Your task to perform on an android device: Show the shopping cart on walmart.com. Image 0: 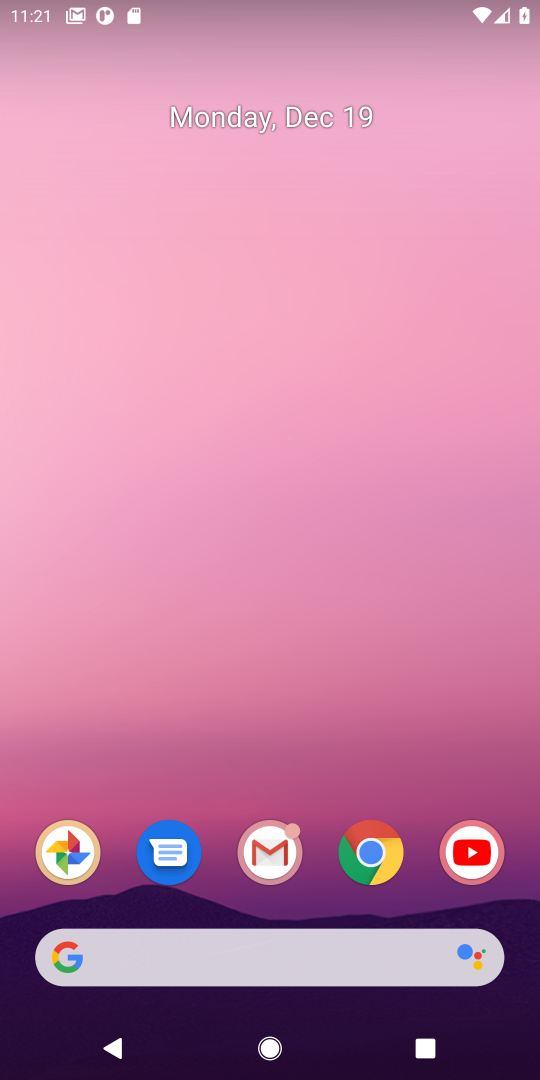
Step 0: click (361, 857)
Your task to perform on an android device: Show the shopping cart on walmart.com. Image 1: 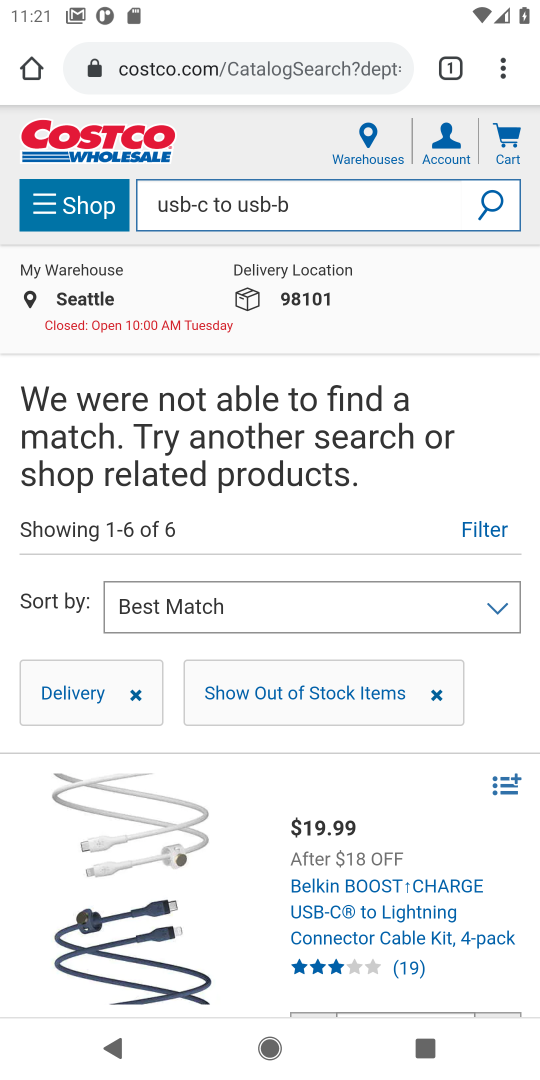
Step 1: click (173, 72)
Your task to perform on an android device: Show the shopping cart on walmart.com. Image 2: 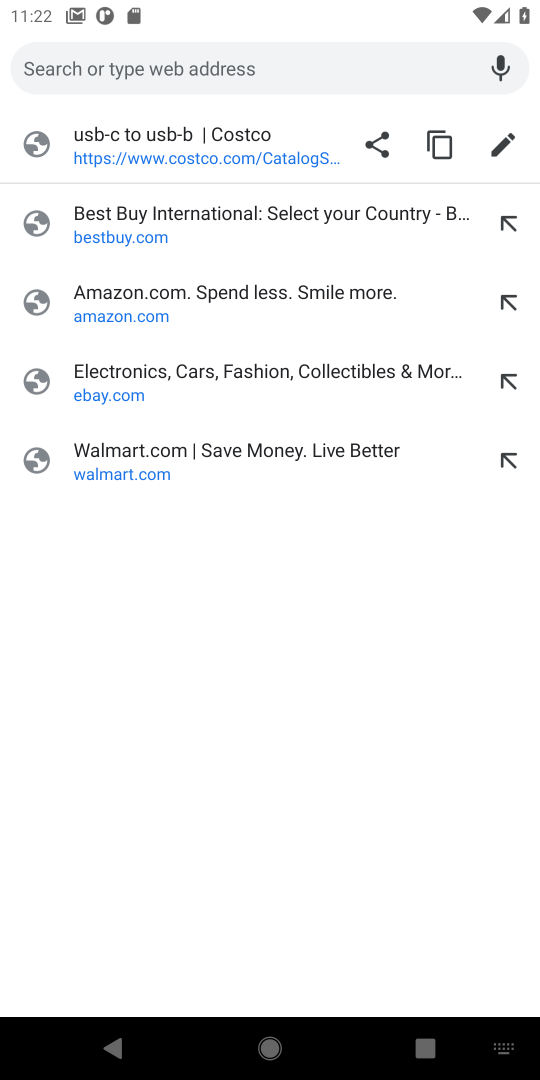
Step 2: click (108, 465)
Your task to perform on an android device: Show the shopping cart on walmart.com. Image 3: 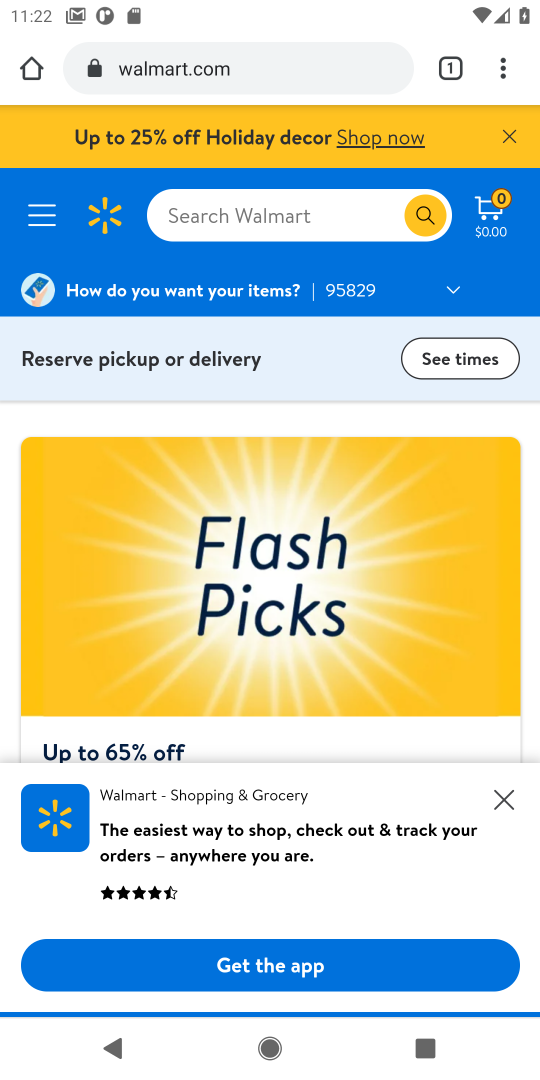
Step 3: click (492, 219)
Your task to perform on an android device: Show the shopping cart on walmart.com. Image 4: 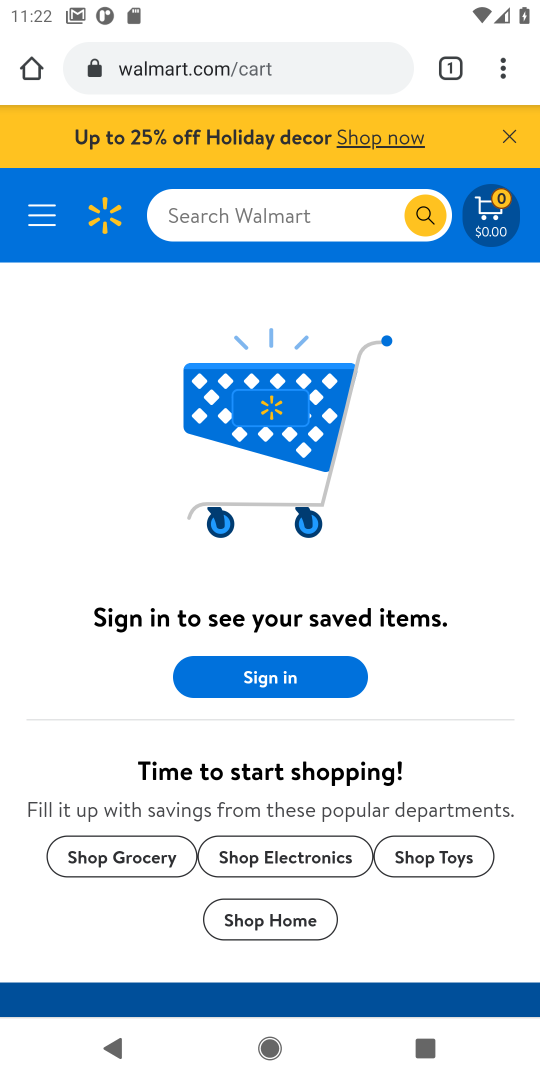
Step 4: task complete